Your task to perform on an android device: Open settings on Google Maps Image 0: 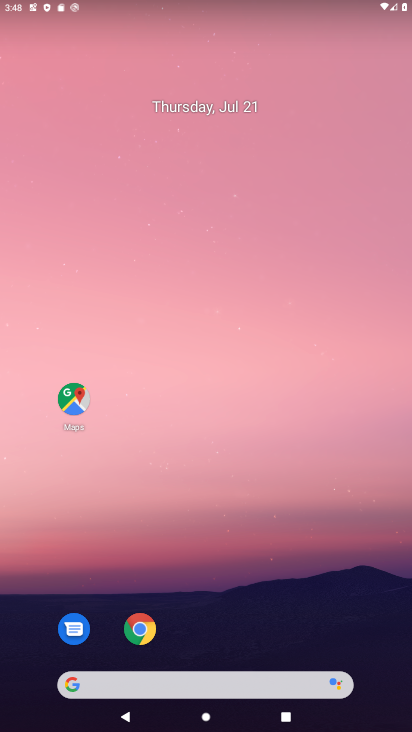
Step 0: drag from (278, 627) to (272, 126)
Your task to perform on an android device: Open settings on Google Maps Image 1: 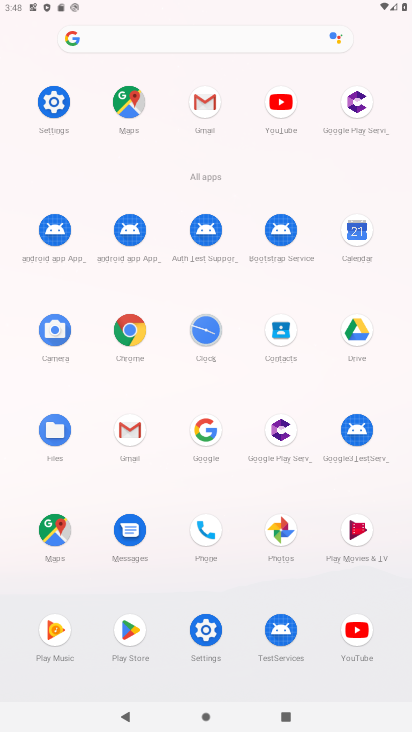
Step 1: click (43, 535)
Your task to perform on an android device: Open settings on Google Maps Image 2: 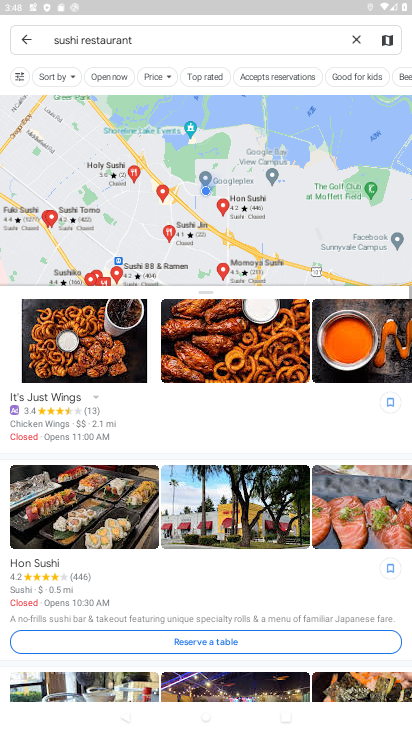
Step 2: click (19, 38)
Your task to perform on an android device: Open settings on Google Maps Image 3: 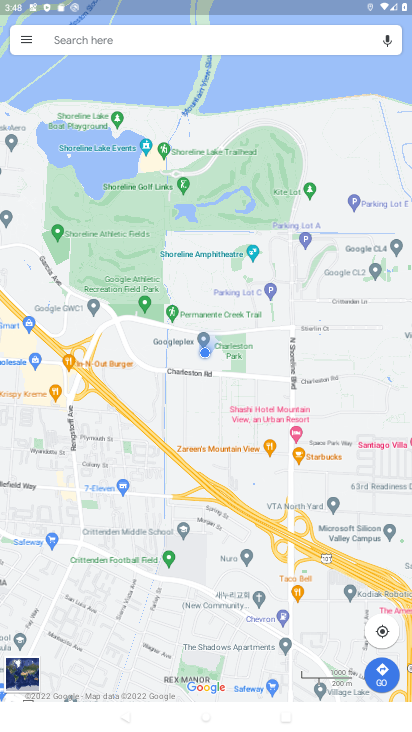
Step 3: click (22, 39)
Your task to perform on an android device: Open settings on Google Maps Image 4: 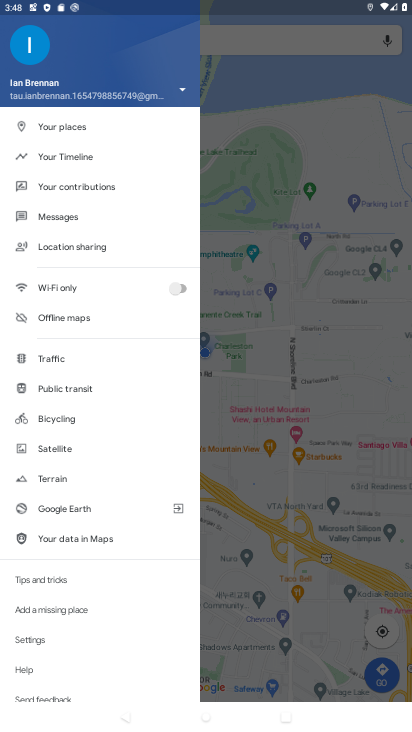
Step 4: click (23, 641)
Your task to perform on an android device: Open settings on Google Maps Image 5: 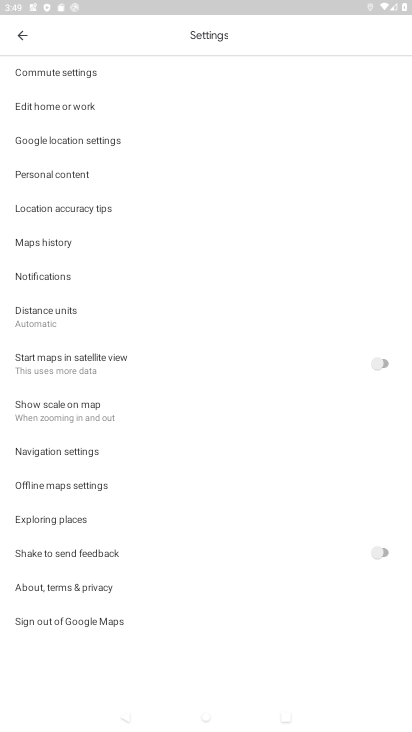
Step 5: task complete